Your task to perform on an android device: Open CNN.com Image 0: 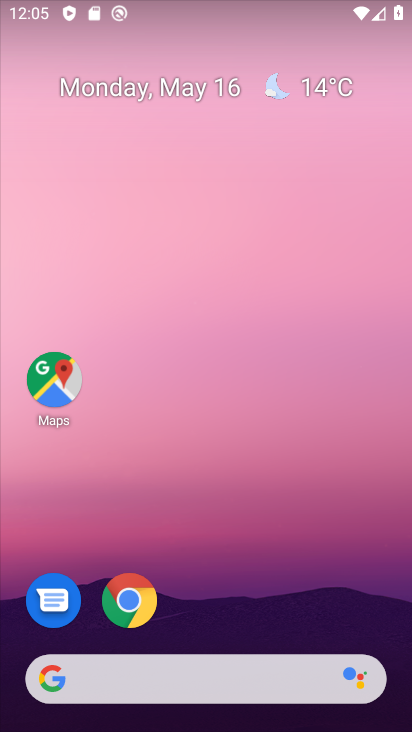
Step 0: press home button
Your task to perform on an android device: Open CNN.com Image 1: 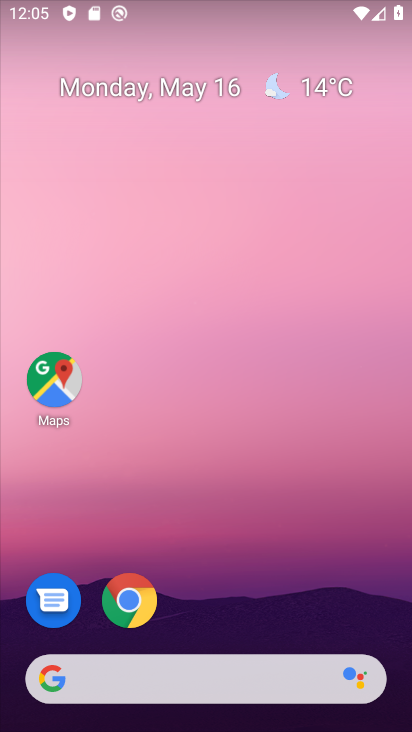
Step 1: click (127, 594)
Your task to perform on an android device: Open CNN.com Image 2: 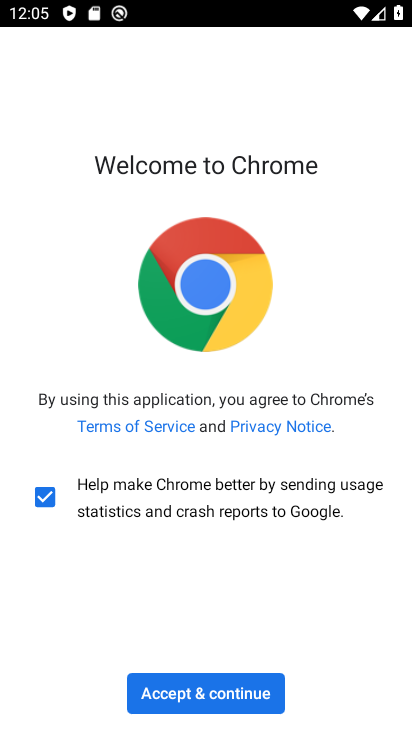
Step 2: click (201, 689)
Your task to perform on an android device: Open CNN.com Image 3: 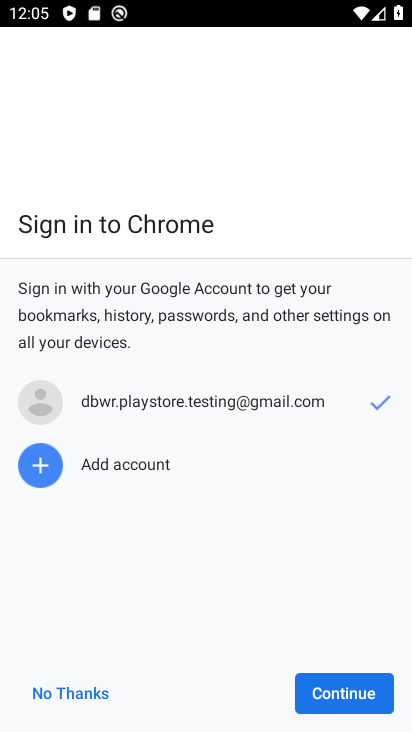
Step 3: click (345, 697)
Your task to perform on an android device: Open CNN.com Image 4: 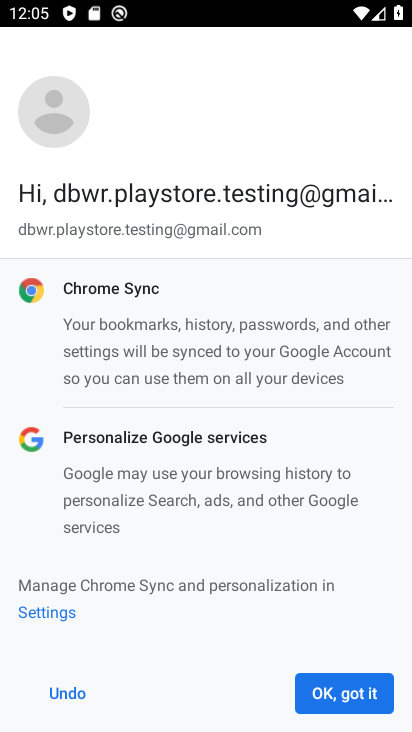
Step 4: click (340, 697)
Your task to perform on an android device: Open CNN.com Image 5: 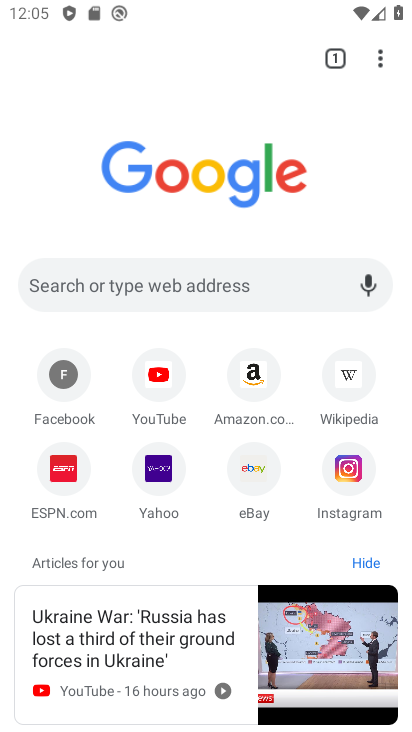
Step 5: click (136, 273)
Your task to perform on an android device: Open CNN.com Image 6: 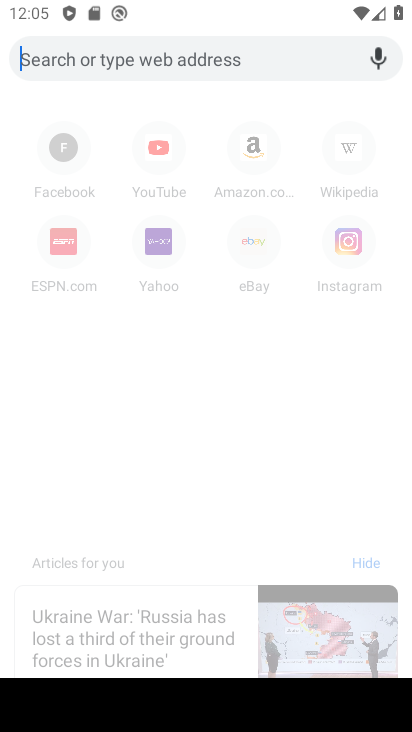
Step 6: type "cnn.com"
Your task to perform on an android device: Open CNN.com Image 7: 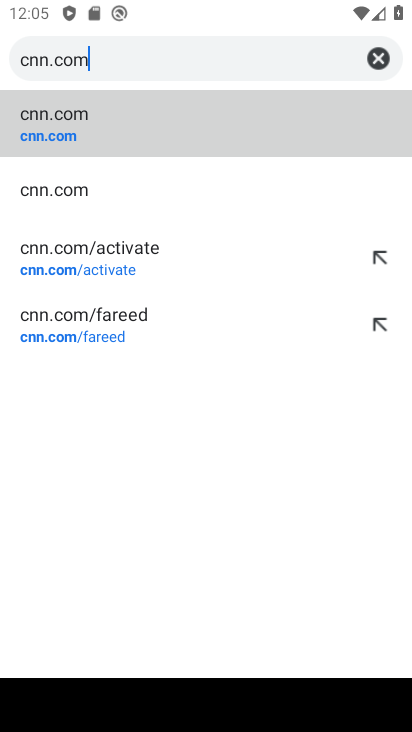
Step 7: click (88, 122)
Your task to perform on an android device: Open CNN.com Image 8: 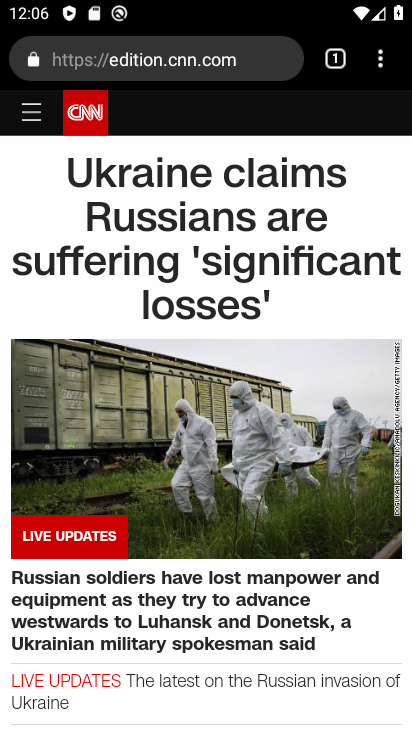
Step 8: drag from (204, 655) to (232, 130)
Your task to perform on an android device: Open CNN.com Image 9: 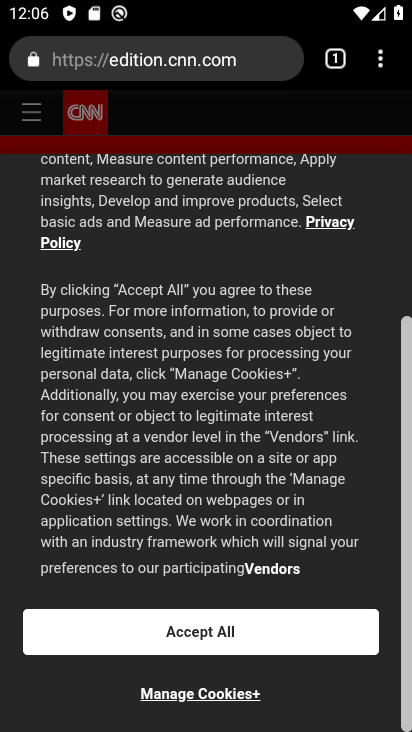
Step 9: click (199, 632)
Your task to perform on an android device: Open CNN.com Image 10: 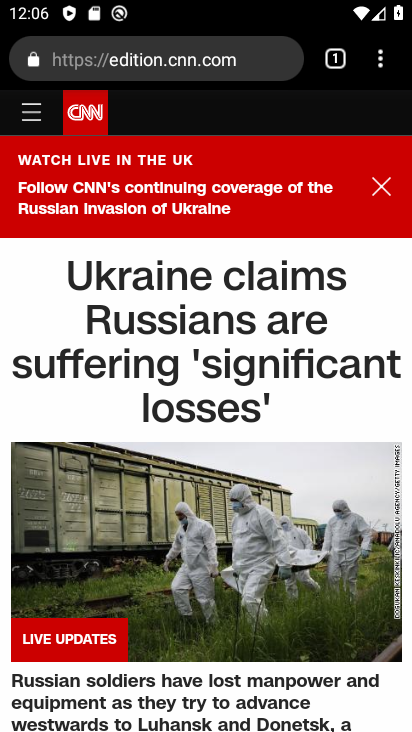
Step 10: task complete